Your task to perform on an android device: Search for Italian restaurants on Maps Image 0: 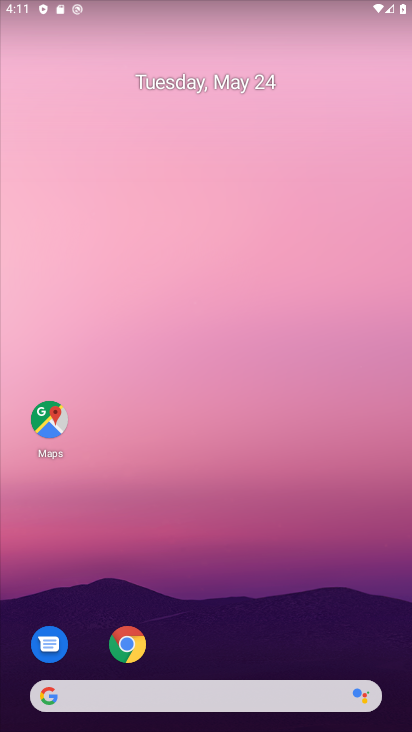
Step 0: drag from (223, 427) to (181, 2)
Your task to perform on an android device: Search for Italian restaurants on Maps Image 1: 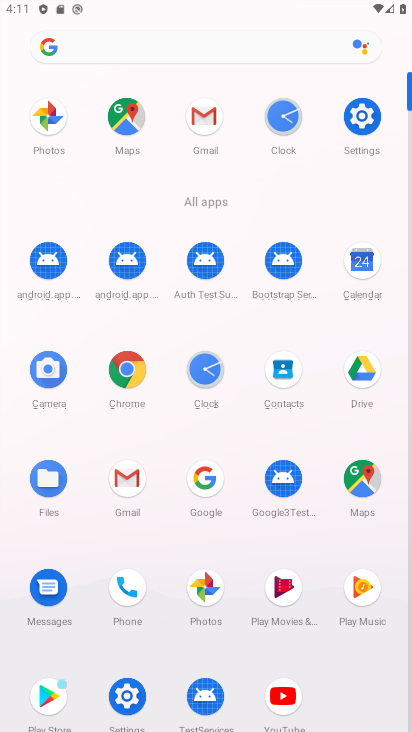
Step 1: click (157, 3)
Your task to perform on an android device: Search for Italian restaurants on Maps Image 2: 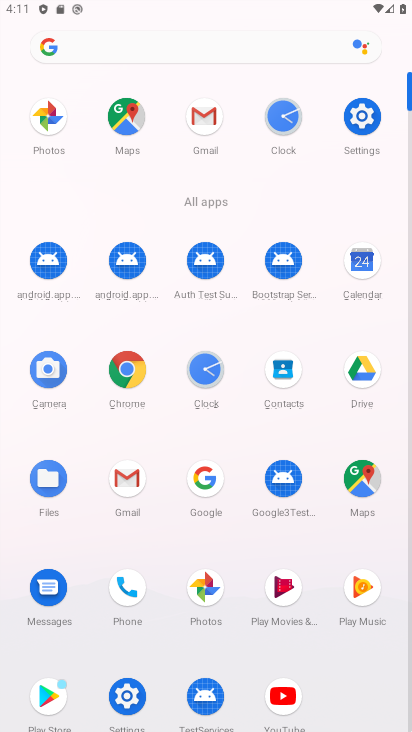
Step 2: drag from (160, 25) to (183, 0)
Your task to perform on an android device: Search for Italian restaurants on Maps Image 3: 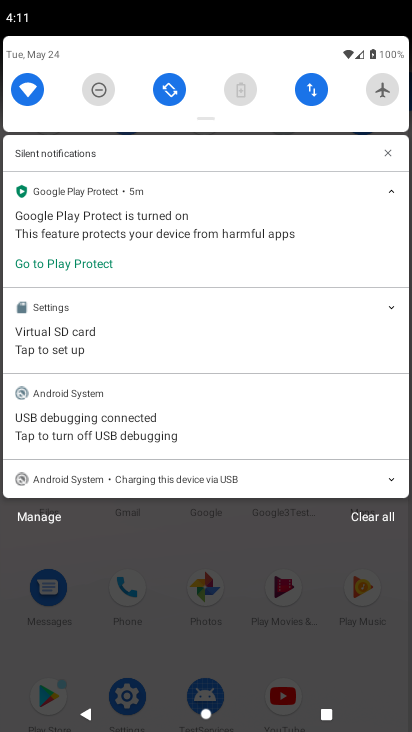
Step 3: press back button
Your task to perform on an android device: Search for Italian restaurants on Maps Image 4: 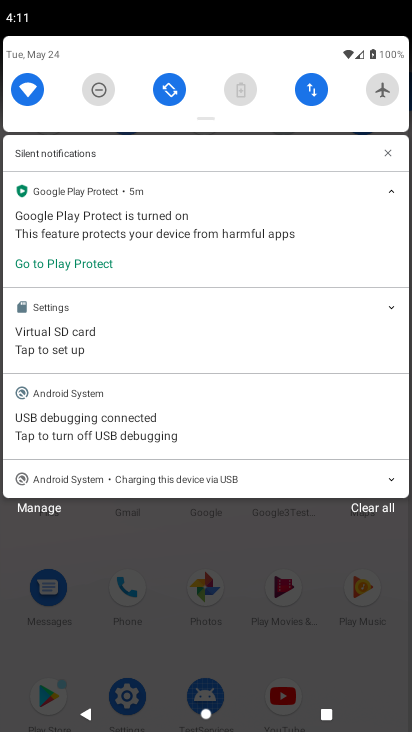
Step 4: press back button
Your task to perform on an android device: Search for Italian restaurants on Maps Image 5: 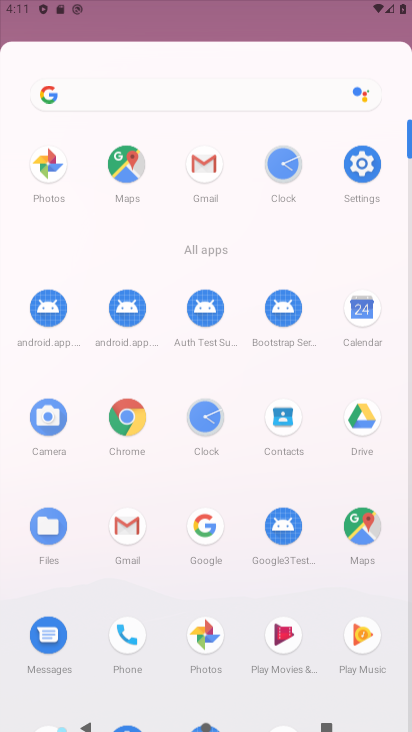
Step 5: press back button
Your task to perform on an android device: Search for Italian restaurants on Maps Image 6: 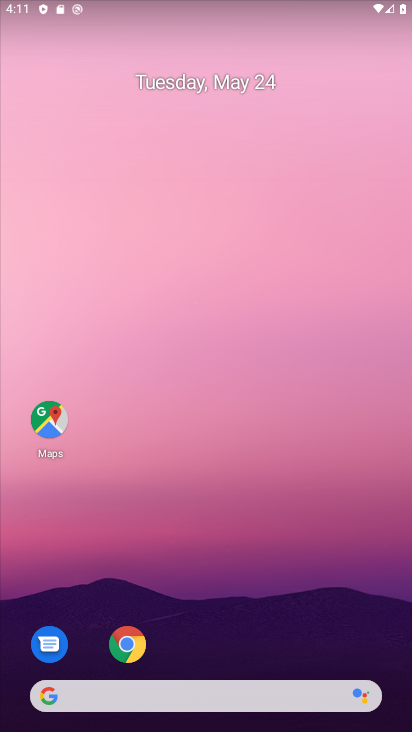
Step 6: press back button
Your task to perform on an android device: Search for Italian restaurants on Maps Image 7: 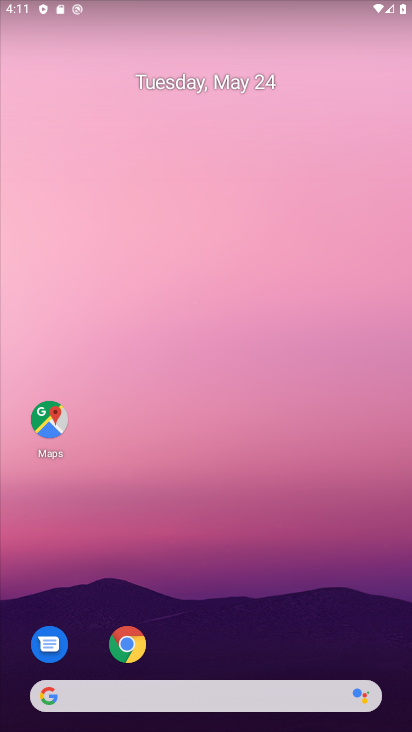
Step 7: press back button
Your task to perform on an android device: Search for Italian restaurants on Maps Image 8: 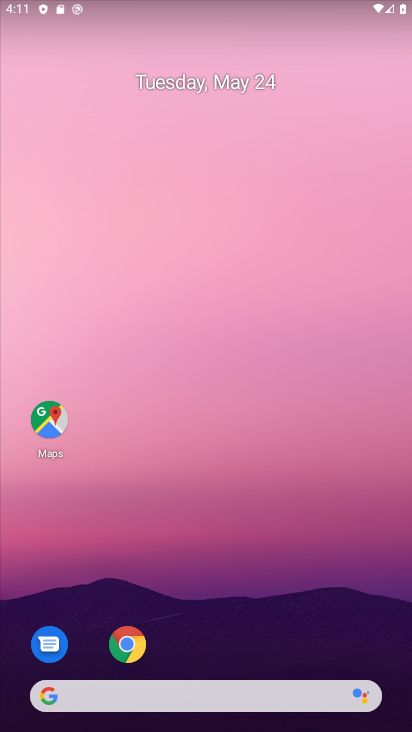
Step 8: drag from (210, 558) to (76, 1)
Your task to perform on an android device: Search for Italian restaurants on Maps Image 9: 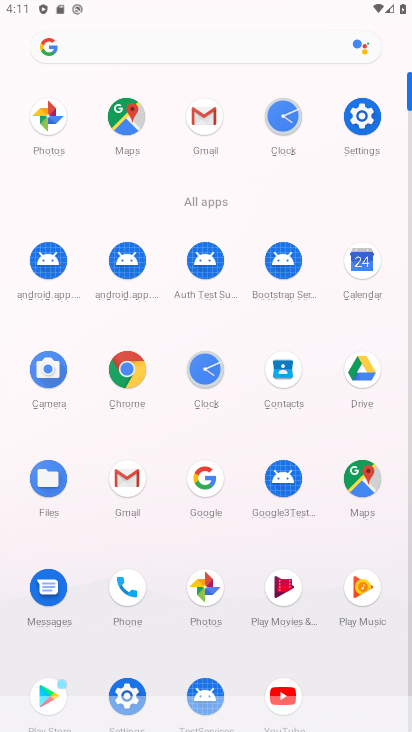
Step 9: drag from (137, 1) to (178, 53)
Your task to perform on an android device: Search for Italian restaurants on Maps Image 10: 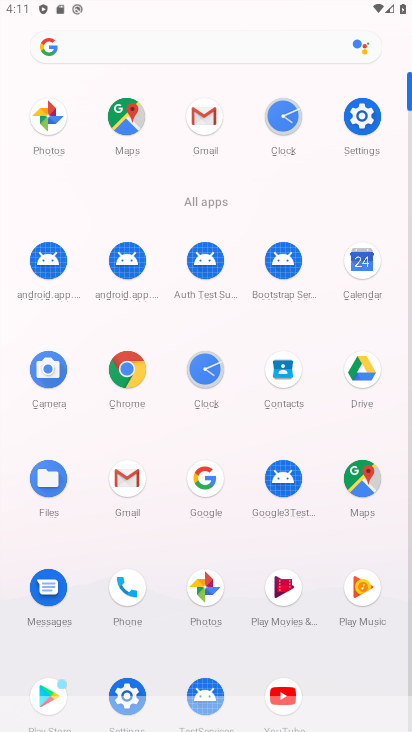
Step 10: click (355, 488)
Your task to perform on an android device: Search for Italian restaurants on Maps Image 11: 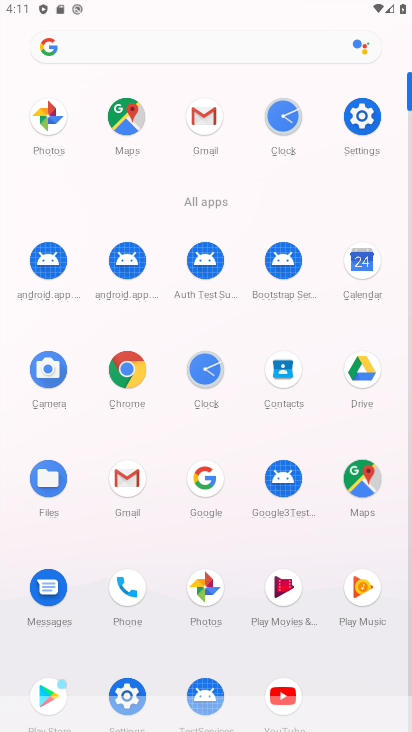
Step 11: click (361, 484)
Your task to perform on an android device: Search for Italian restaurants on Maps Image 12: 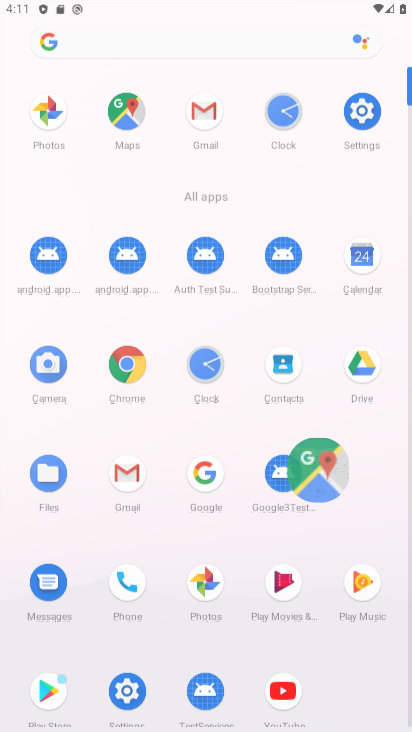
Step 12: click (361, 484)
Your task to perform on an android device: Search for Italian restaurants on Maps Image 13: 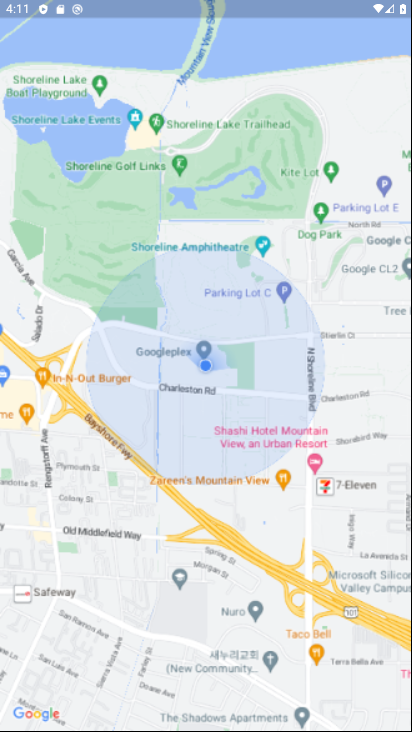
Step 13: click (361, 484)
Your task to perform on an android device: Search for Italian restaurants on Maps Image 14: 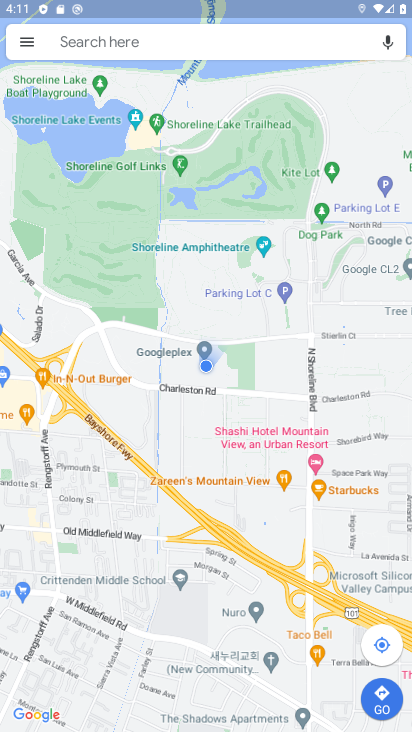
Step 14: click (361, 484)
Your task to perform on an android device: Search for Italian restaurants on Maps Image 15: 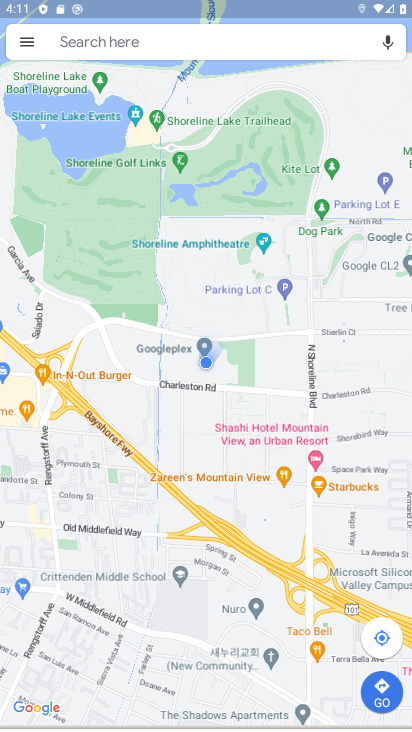
Step 15: click (351, 475)
Your task to perform on an android device: Search for Italian restaurants on Maps Image 16: 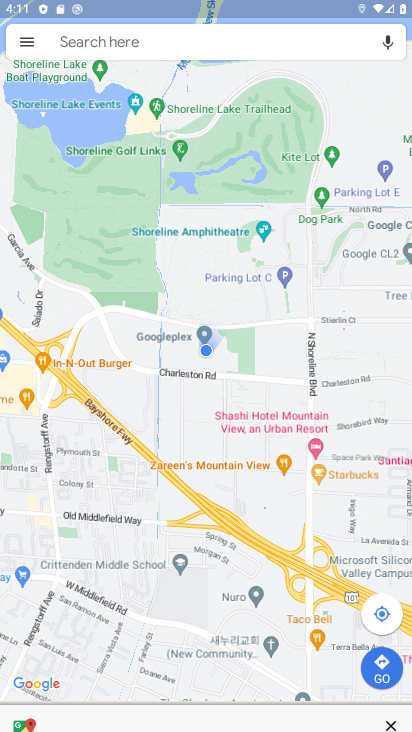
Step 16: click (351, 481)
Your task to perform on an android device: Search for Italian restaurants on Maps Image 17: 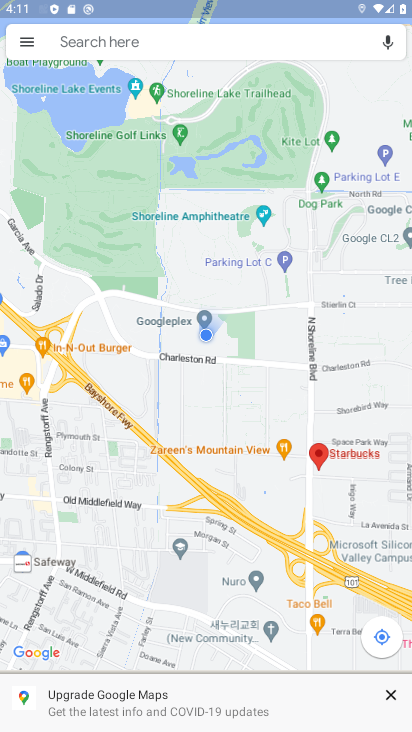
Step 17: click (353, 484)
Your task to perform on an android device: Search for Italian restaurants on Maps Image 18: 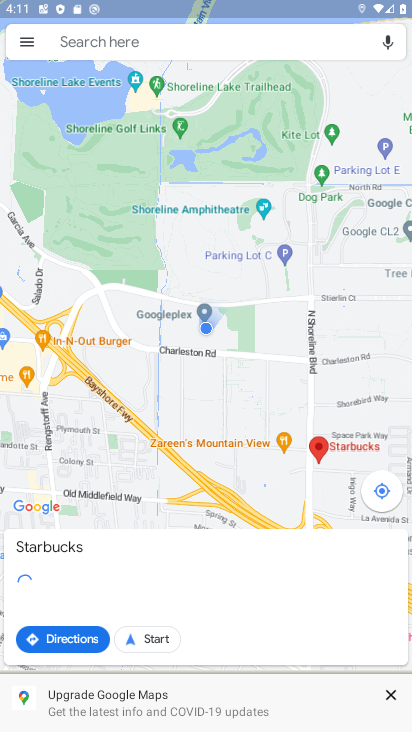
Step 18: click (353, 481)
Your task to perform on an android device: Search for Italian restaurants on Maps Image 19: 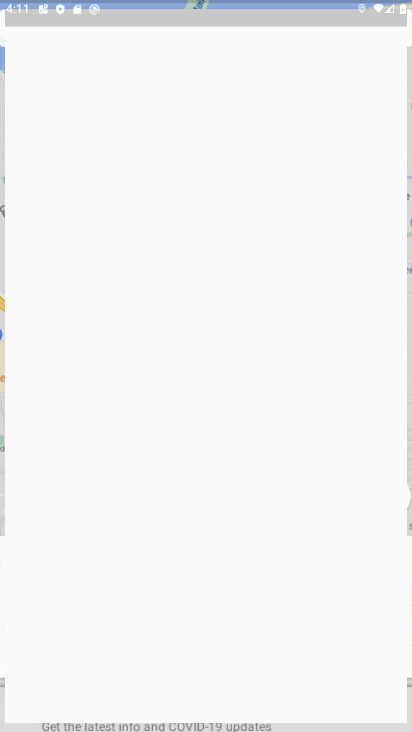
Step 19: click (74, 32)
Your task to perform on an android device: Search for Italian restaurants on Maps Image 20: 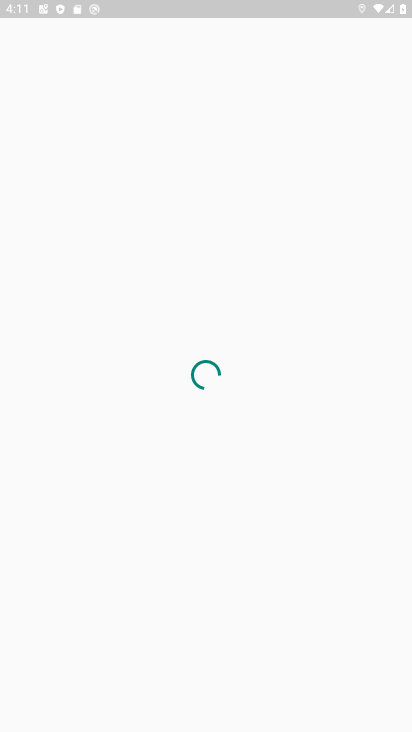
Step 20: click (79, 46)
Your task to perform on an android device: Search for Italian restaurants on Maps Image 21: 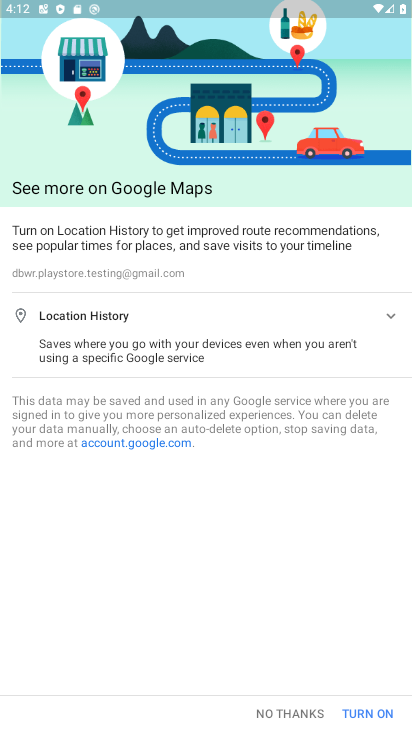
Step 21: click (280, 709)
Your task to perform on an android device: Search for Italian restaurants on Maps Image 22: 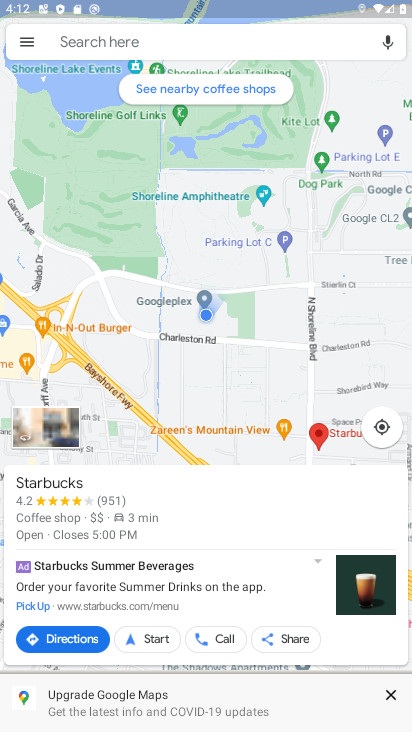
Step 22: click (77, 41)
Your task to perform on an android device: Search for Italian restaurants on Maps Image 23: 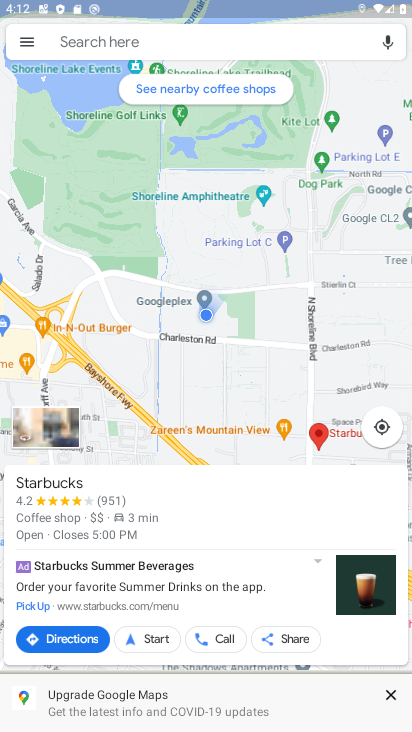
Step 23: click (78, 41)
Your task to perform on an android device: Search for Italian restaurants on Maps Image 24: 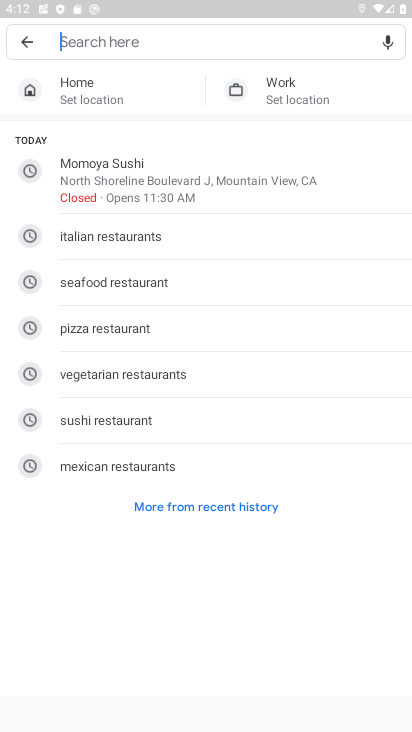
Step 24: click (65, 41)
Your task to perform on an android device: Search for Italian restaurants on Maps Image 25: 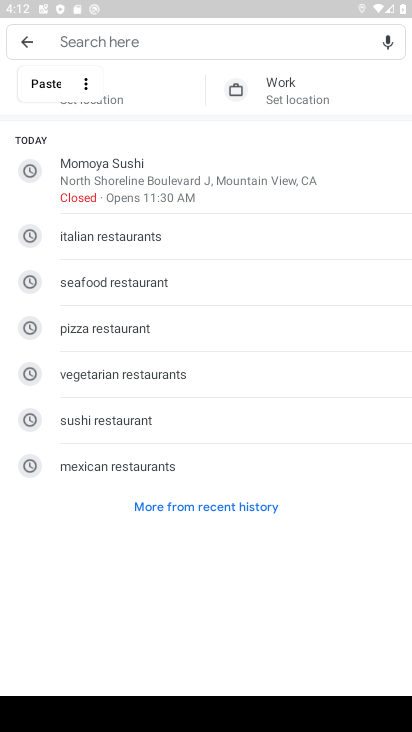
Step 25: click (104, 241)
Your task to perform on an android device: Search for Italian restaurants on Maps Image 26: 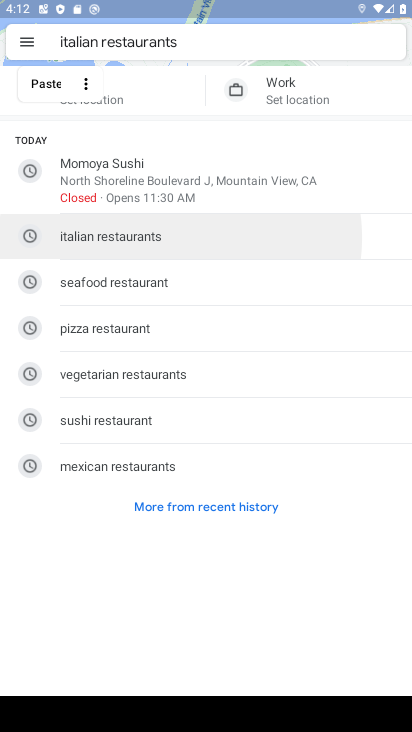
Step 26: click (106, 243)
Your task to perform on an android device: Search for Italian restaurants on Maps Image 27: 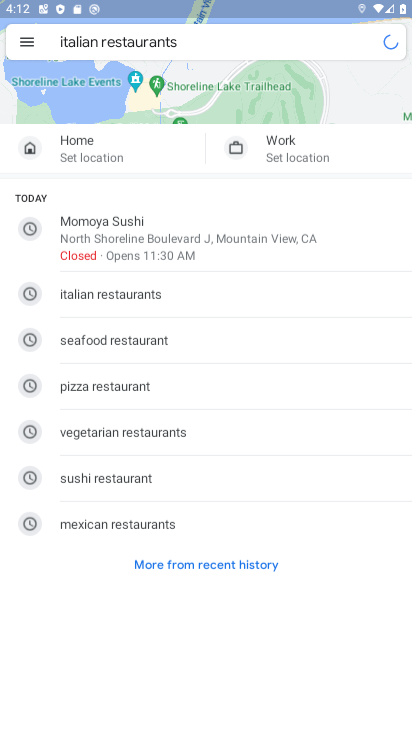
Step 27: click (108, 243)
Your task to perform on an android device: Search for Italian restaurants on Maps Image 28: 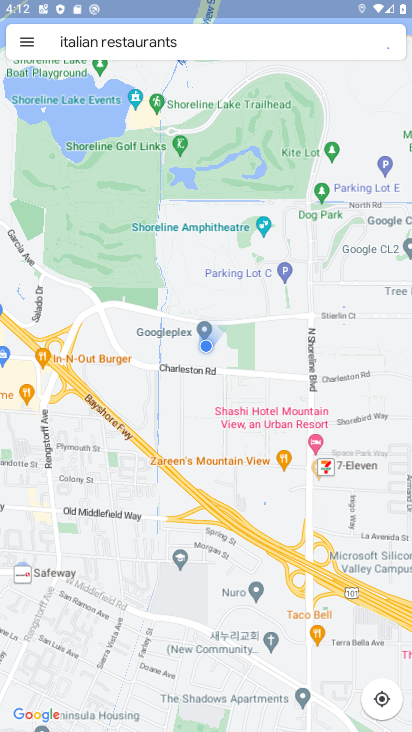
Step 28: click (104, 233)
Your task to perform on an android device: Search for Italian restaurants on Maps Image 29: 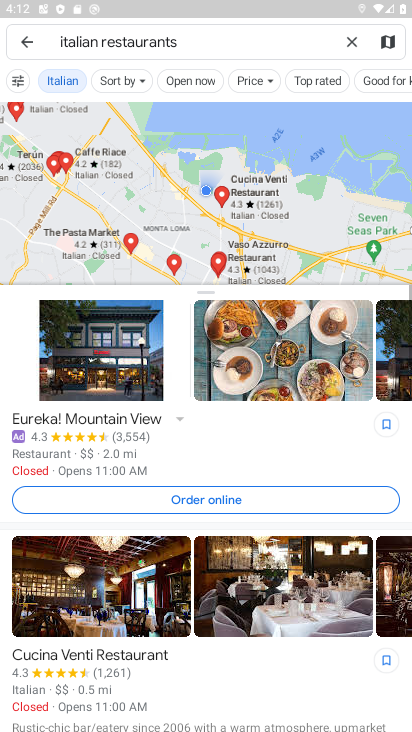
Step 29: task complete